Your task to perform on an android device: Open calendar and show me the fourth week of next month Image 0: 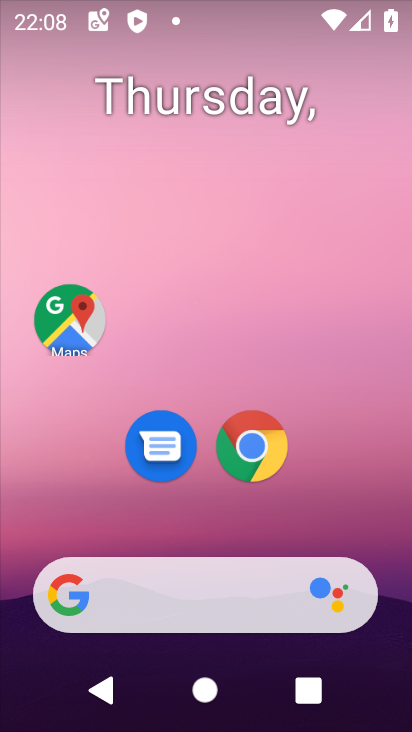
Step 0: drag from (363, 531) to (315, 91)
Your task to perform on an android device: Open calendar and show me the fourth week of next month Image 1: 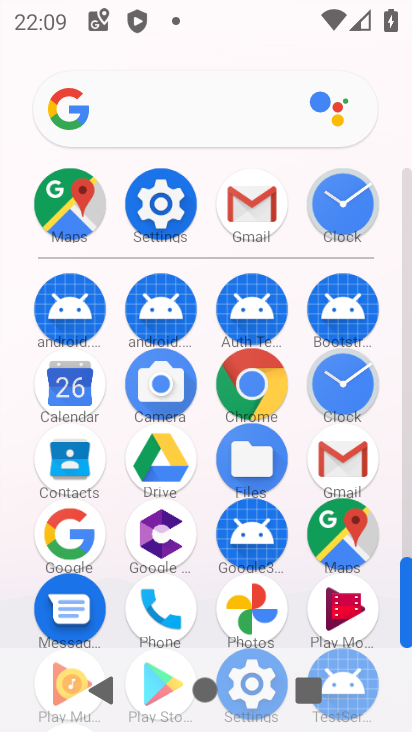
Step 1: click (60, 404)
Your task to perform on an android device: Open calendar and show me the fourth week of next month Image 2: 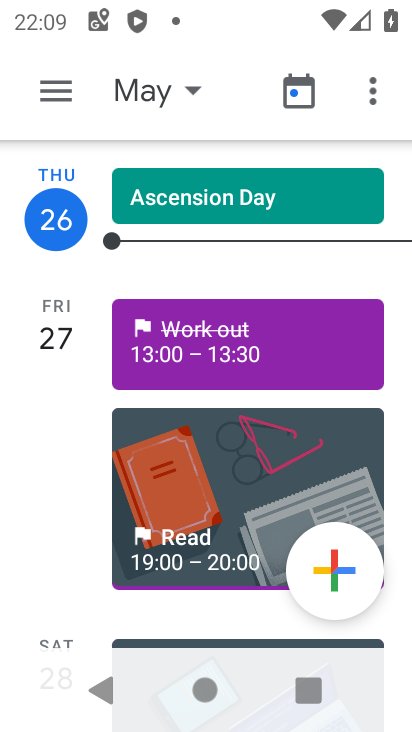
Step 2: click (184, 97)
Your task to perform on an android device: Open calendar and show me the fourth week of next month Image 3: 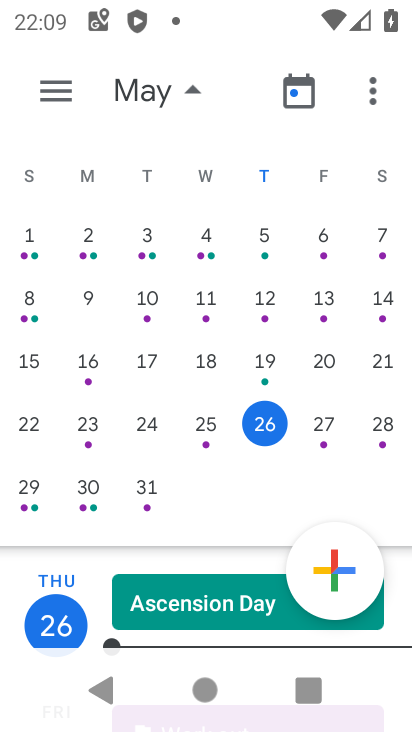
Step 3: drag from (410, 290) to (0, 351)
Your task to perform on an android device: Open calendar and show me the fourth week of next month Image 4: 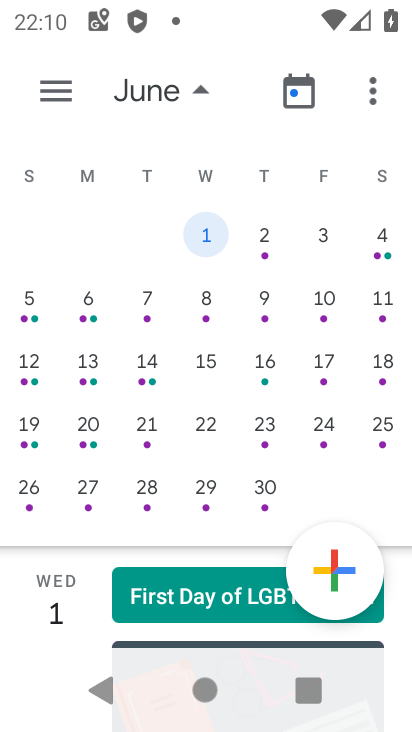
Step 4: click (215, 443)
Your task to perform on an android device: Open calendar and show me the fourth week of next month Image 5: 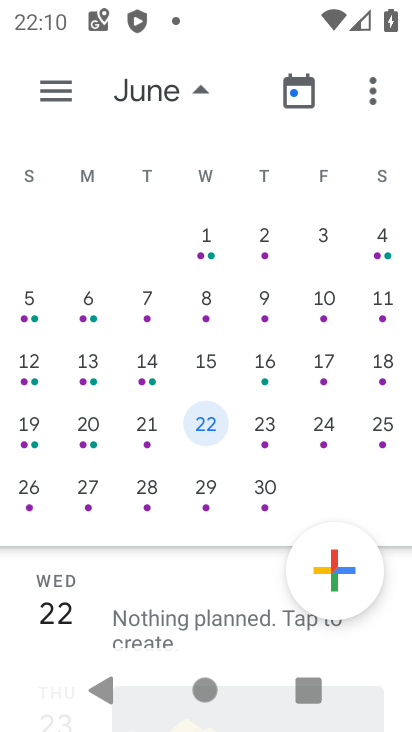
Step 5: task complete